Your task to perform on an android device: change the upload size in google photos Image 0: 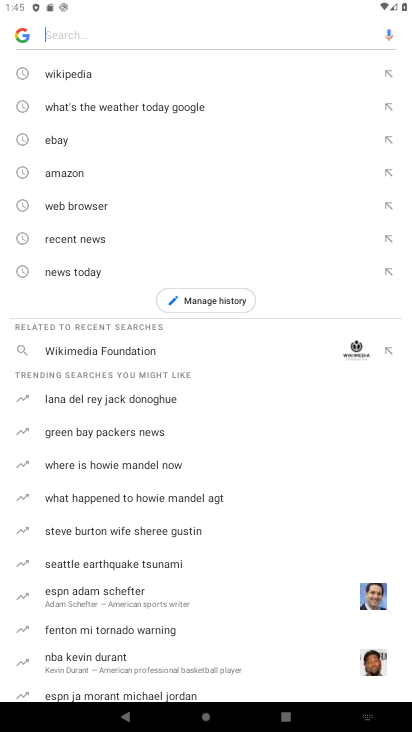
Step 0: task complete